Your task to perform on an android device: find photos in the google photos app Image 0: 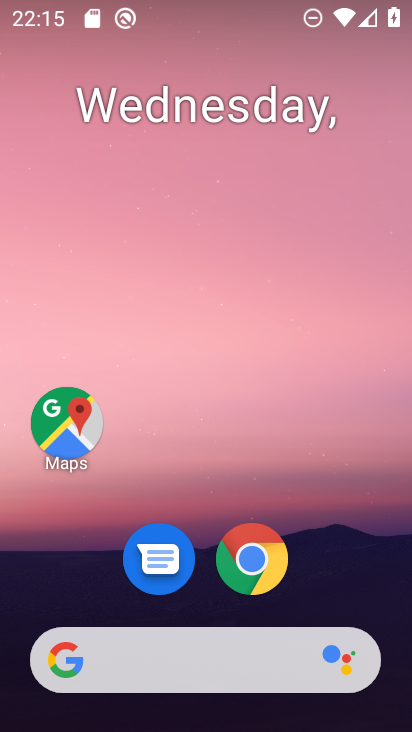
Step 0: drag from (366, 565) to (384, 191)
Your task to perform on an android device: find photos in the google photos app Image 1: 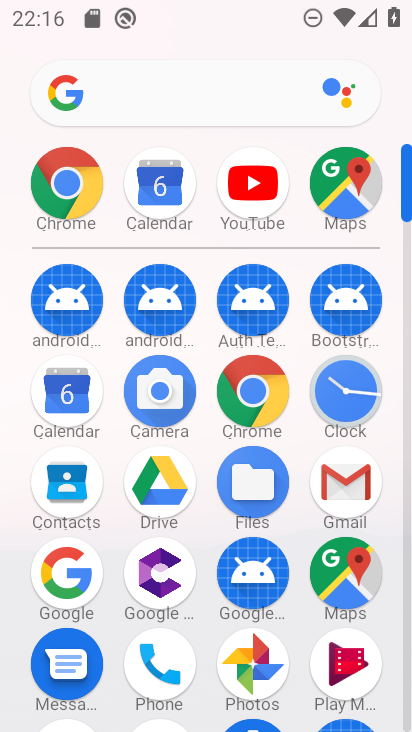
Step 1: click (258, 655)
Your task to perform on an android device: find photos in the google photos app Image 2: 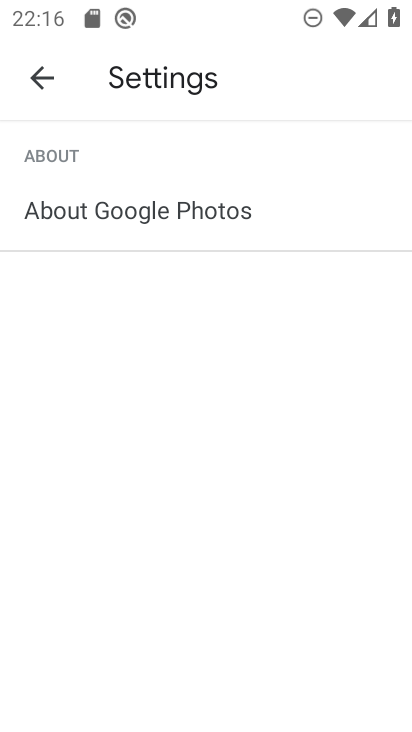
Step 2: press back button
Your task to perform on an android device: find photos in the google photos app Image 3: 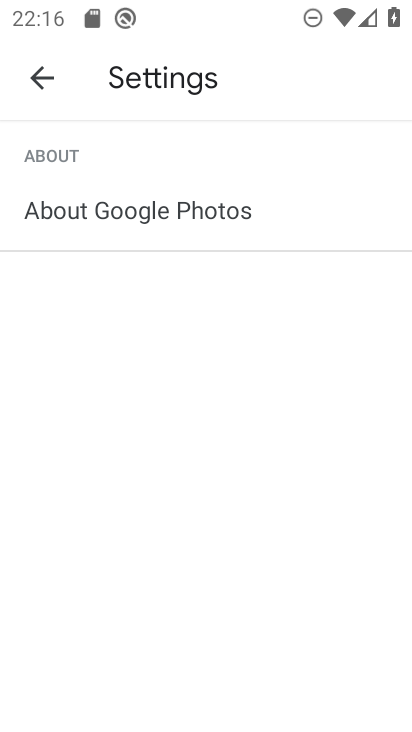
Step 3: press back button
Your task to perform on an android device: find photos in the google photos app Image 4: 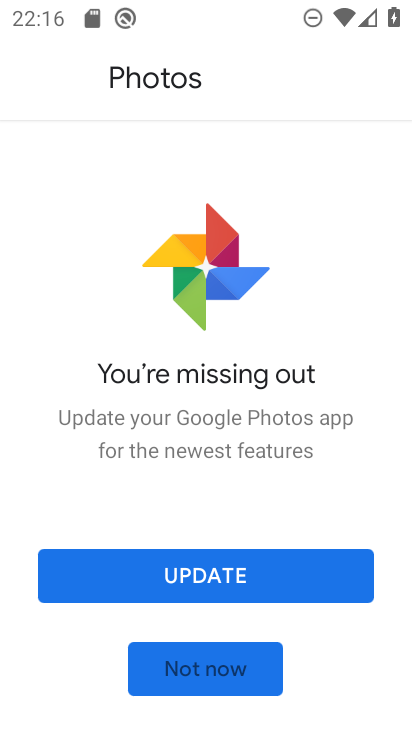
Step 4: click (354, 570)
Your task to perform on an android device: find photos in the google photos app Image 5: 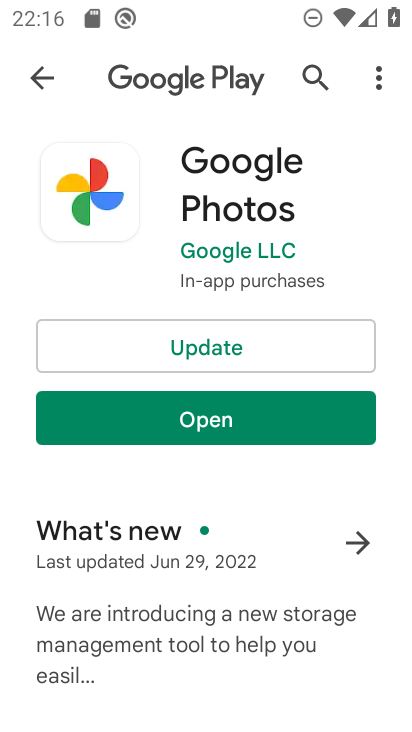
Step 5: click (276, 342)
Your task to perform on an android device: find photos in the google photos app Image 6: 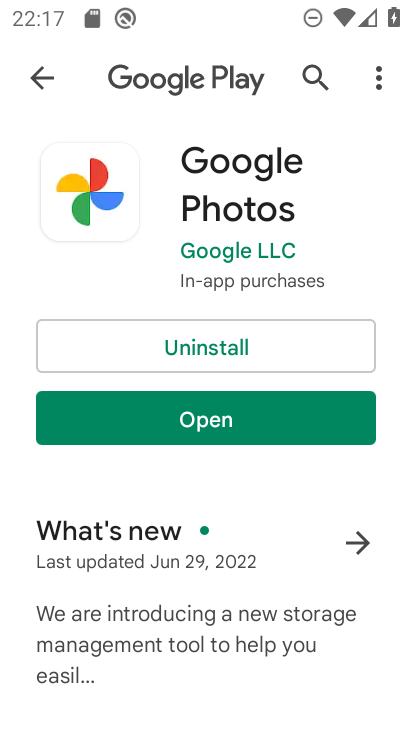
Step 6: click (320, 413)
Your task to perform on an android device: find photos in the google photos app Image 7: 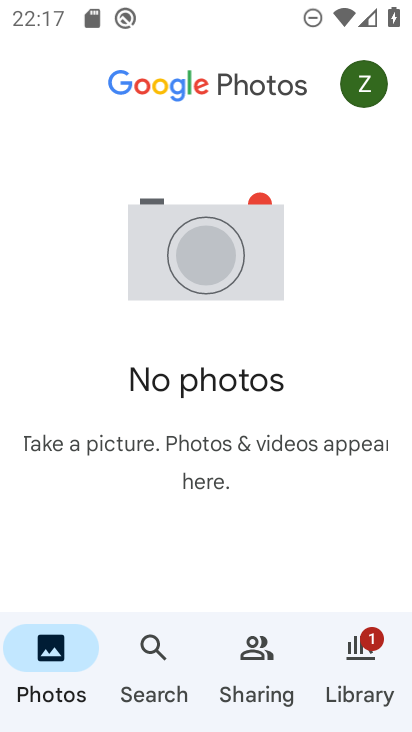
Step 7: task complete